Your task to perform on an android device: Open Google Chrome Image 0: 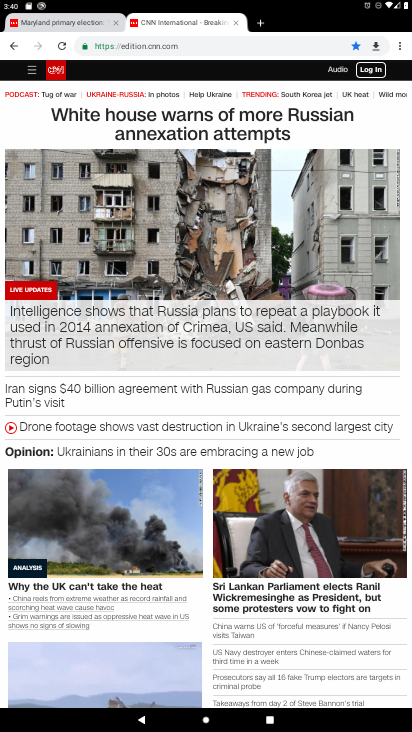
Step 0: press home button
Your task to perform on an android device: Open Google Chrome Image 1: 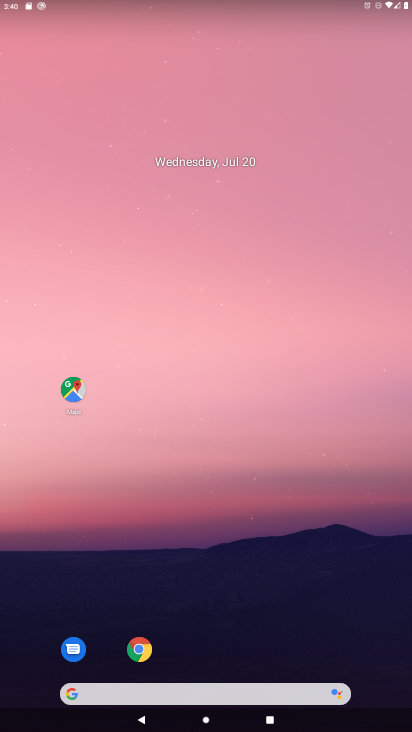
Step 1: click (141, 651)
Your task to perform on an android device: Open Google Chrome Image 2: 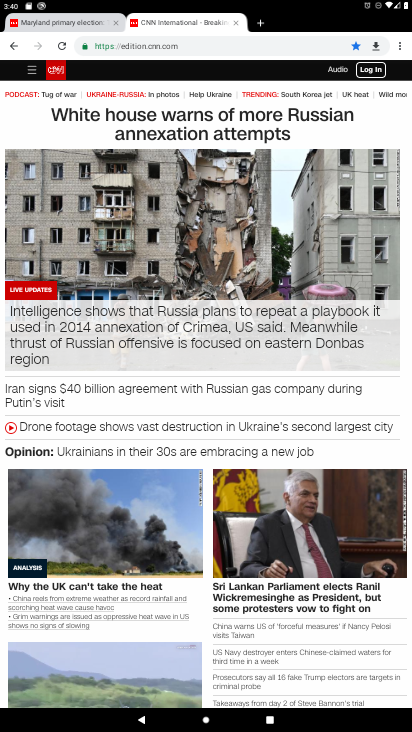
Step 2: task complete